Your task to perform on an android device: turn on bluetooth scan Image 0: 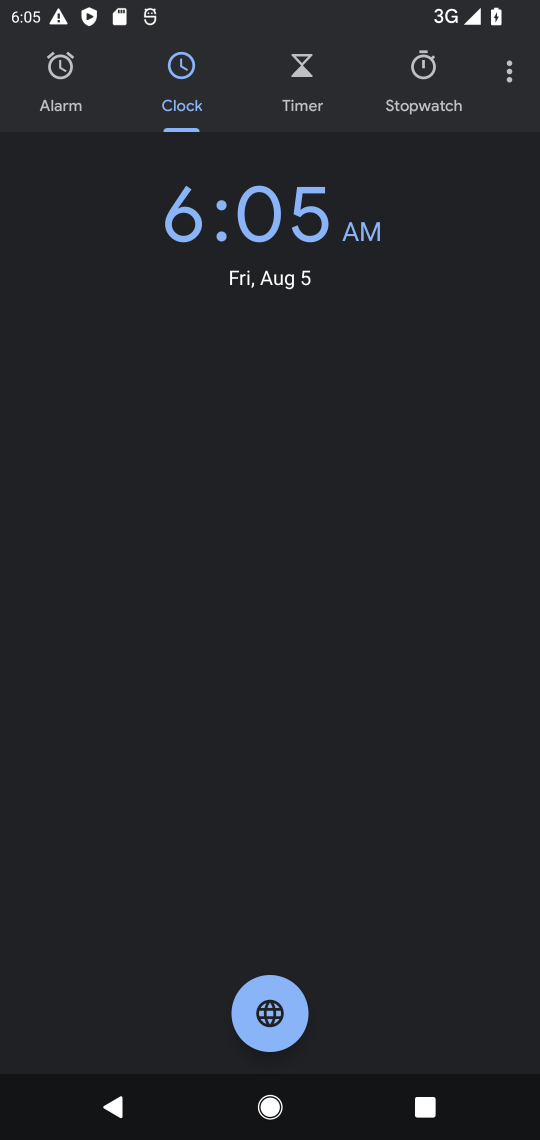
Step 0: press home button
Your task to perform on an android device: turn on bluetooth scan Image 1: 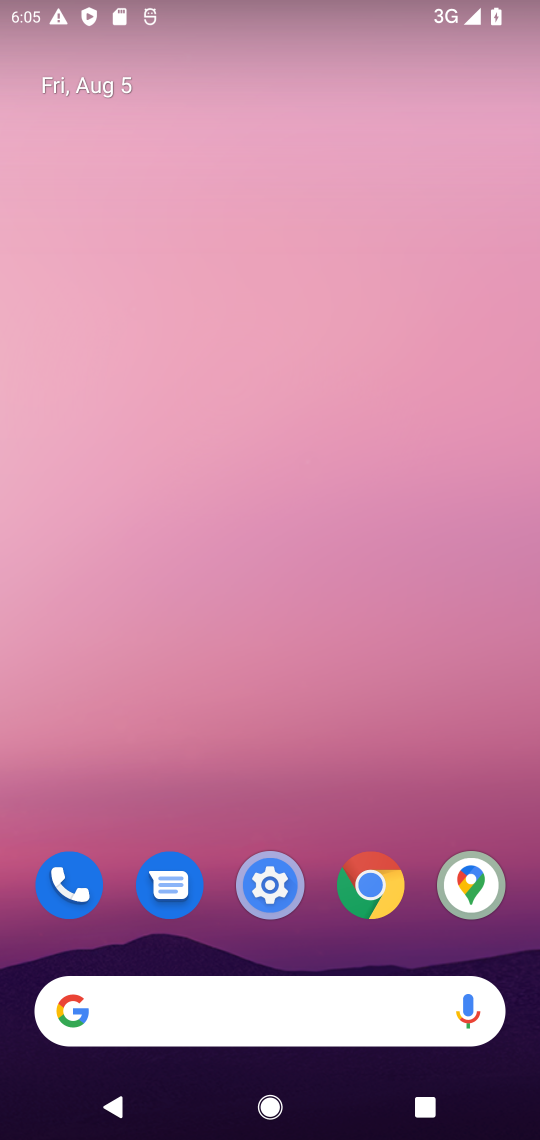
Step 1: drag from (224, 797) to (310, 12)
Your task to perform on an android device: turn on bluetooth scan Image 2: 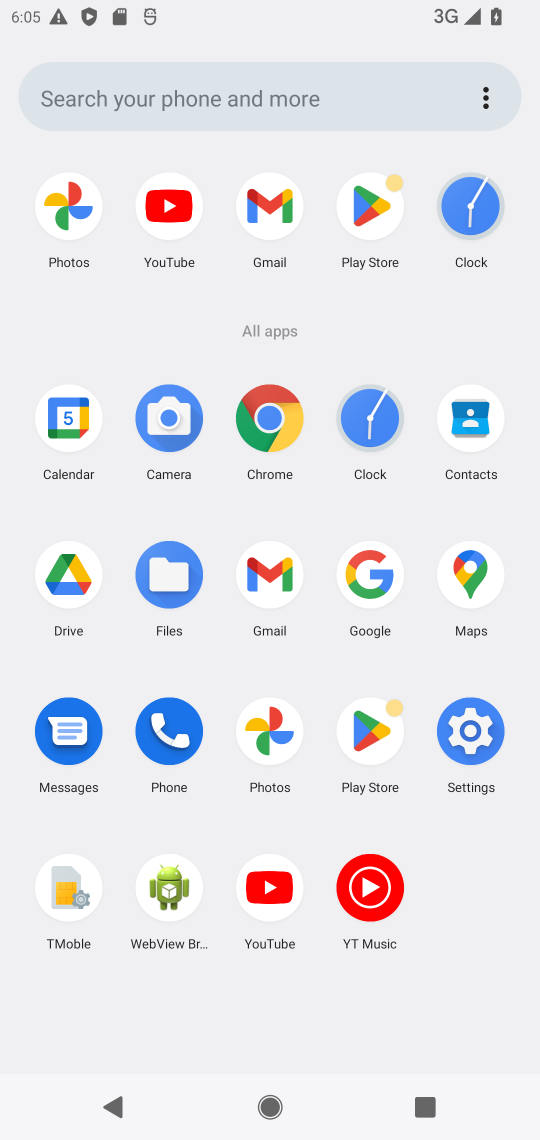
Step 2: click (478, 744)
Your task to perform on an android device: turn on bluetooth scan Image 3: 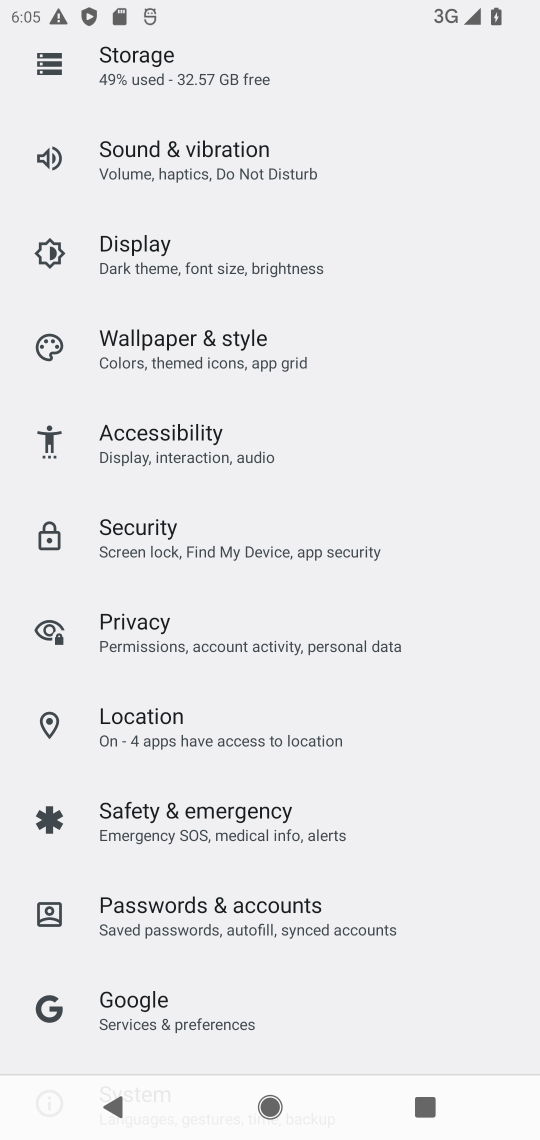
Step 3: click (144, 742)
Your task to perform on an android device: turn on bluetooth scan Image 4: 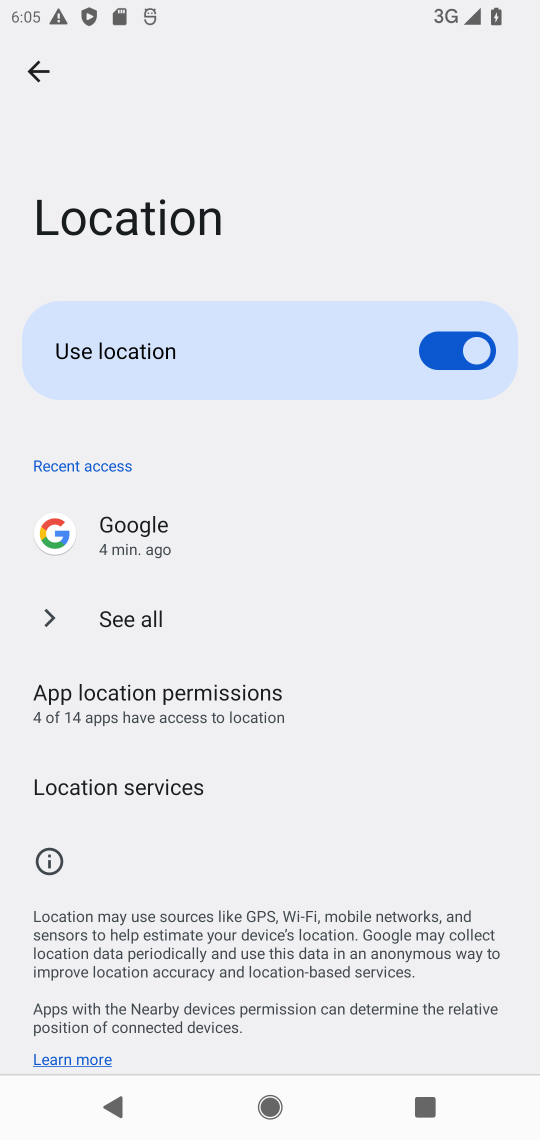
Step 4: drag from (204, 921) to (212, 684)
Your task to perform on an android device: turn on bluetooth scan Image 5: 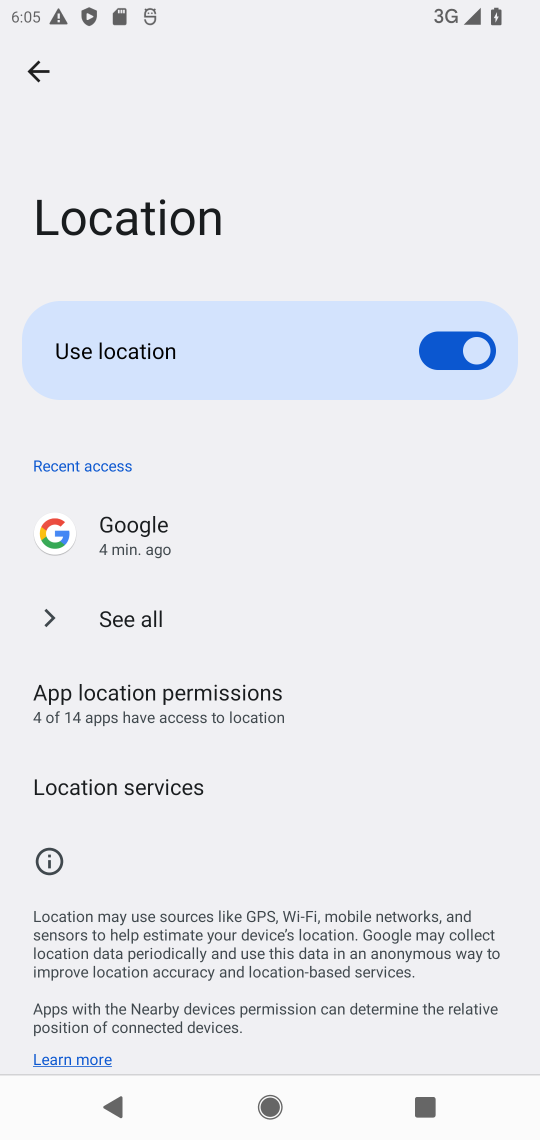
Step 5: click (140, 786)
Your task to perform on an android device: turn on bluetooth scan Image 6: 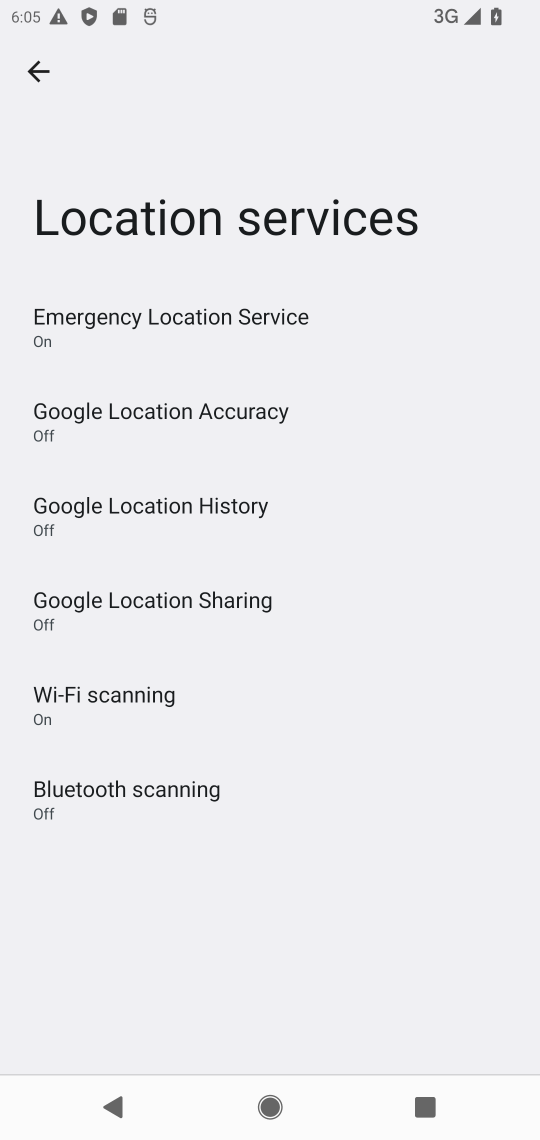
Step 6: click (190, 801)
Your task to perform on an android device: turn on bluetooth scan Image 7: 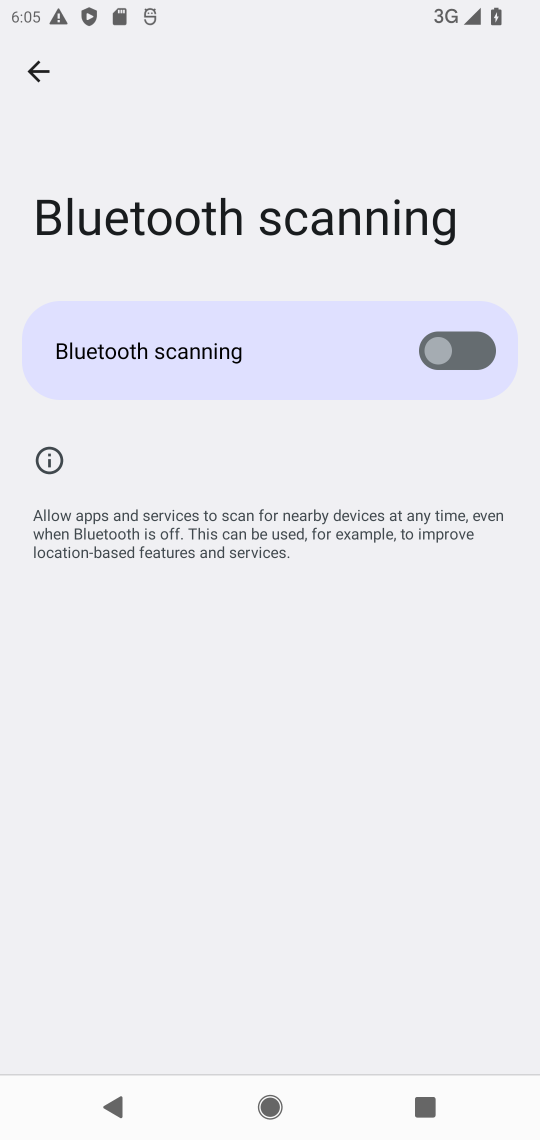
Step 7: click (476, 355)
Your task to perform on an android device: turn on bluetooth scan Image 8: 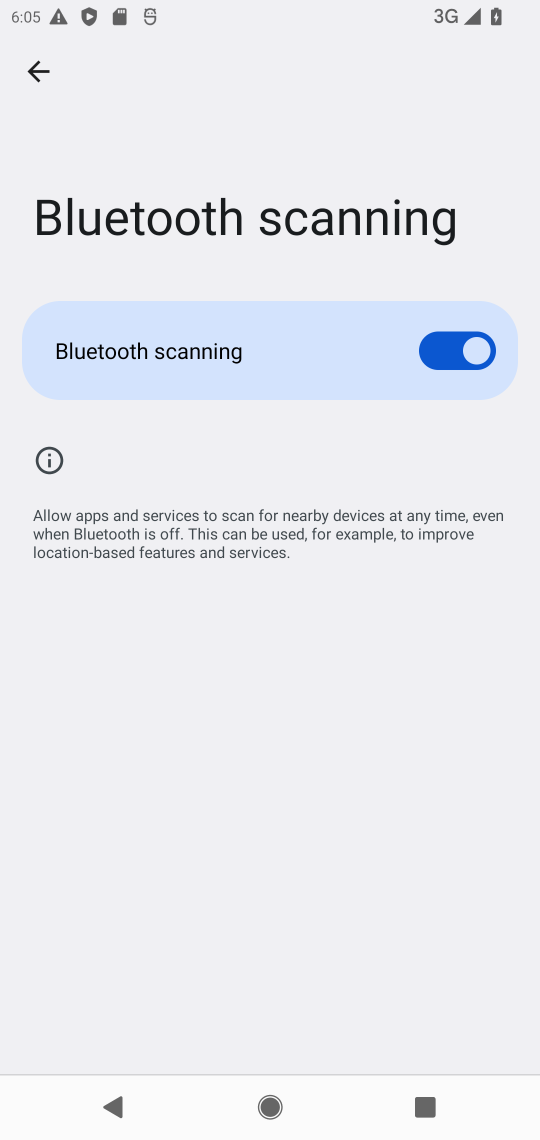
Step 8: task complete